Your task to perform on an android device: delete the emails in spam in the gmail app Image 0: 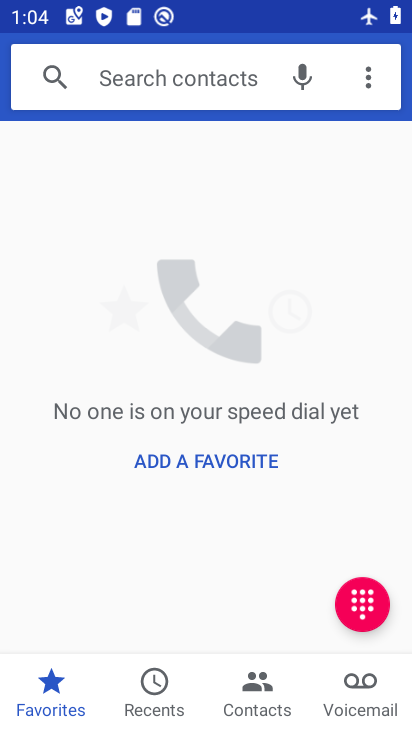
Step 0: press home button
Your task to perform on an android device: delete the emails in spam in the gmail app Image 1: 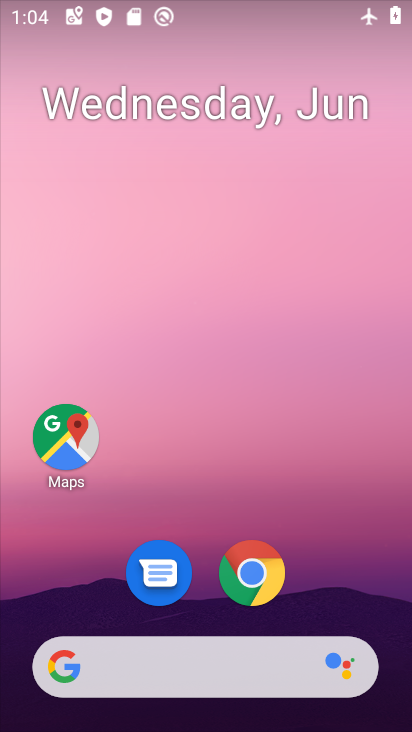
Step 1: drag from (386, 573) to (375, 82)
Your task to perform on an android device: delete the emails in spam in the gmail app Image 2: 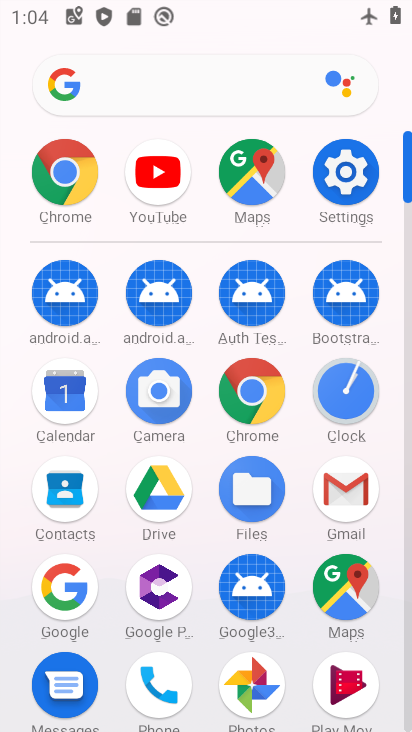
Step 2: click (358, 500)
Your task to perform on an android device: delete the emails in spam in the gmail app Image 3: 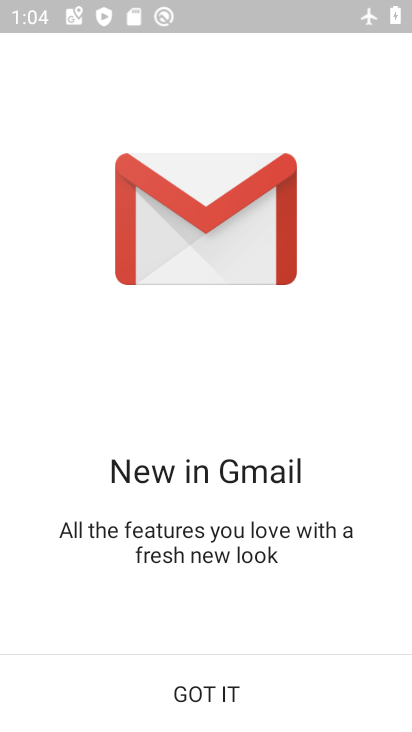
Step 3: click (257, 712)
Your task to perform on an android device: delete the emails in spam in the gmail app Image 4: 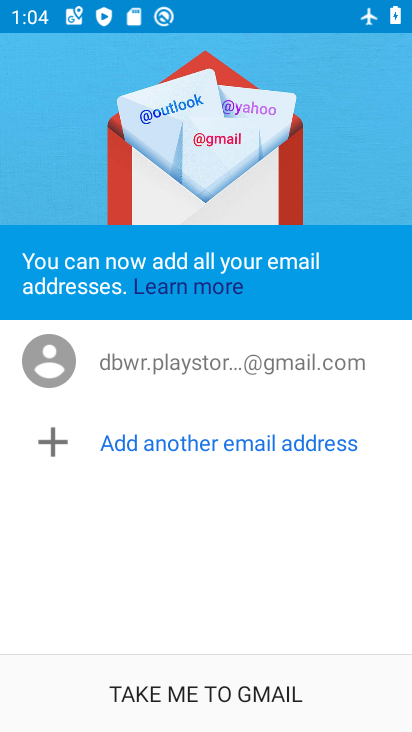
Step 4: click (257, 697)
Your task to perform on an android device: delete the emails in spam in the gmail app Image 5: 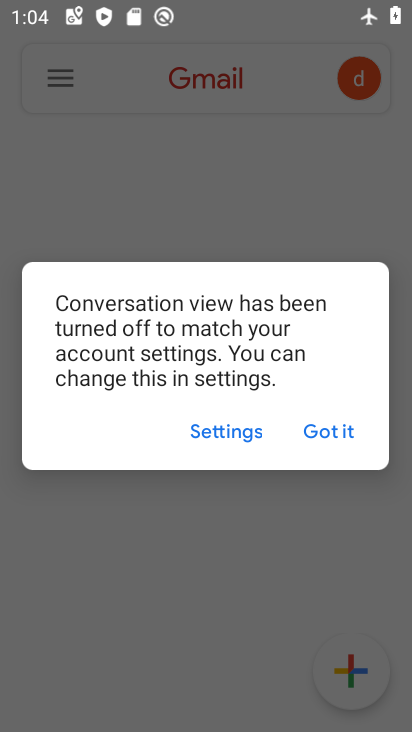
Step 5: click (352, 439)
Your task to perform on an android device: delete the emails in spam in the gmail app Image 6: 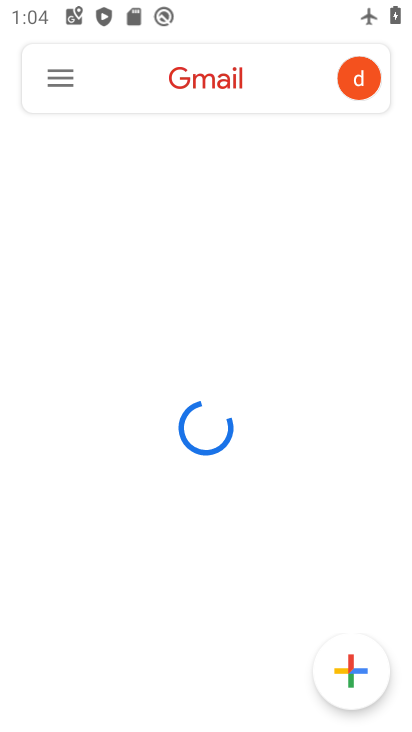
Step 6: click (53, 88)
Your task to perform on an android device: delete the emails in spam in the gmail app Image 7: 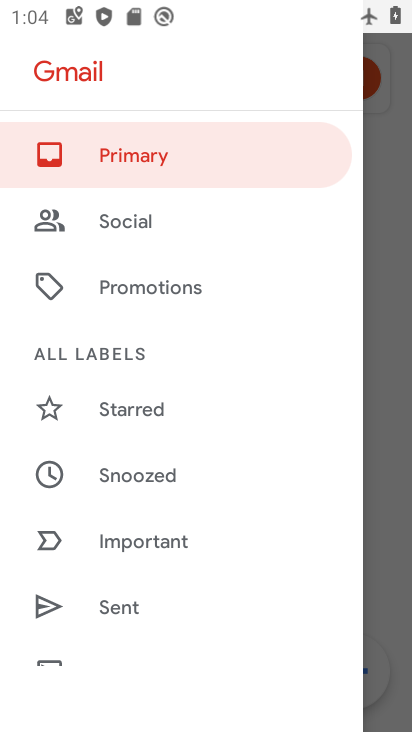
Step 7: drag from (199, 578) to (232, 201)
Your task to perform on an android device: delete the emails in spam in the gmail app Image 8: 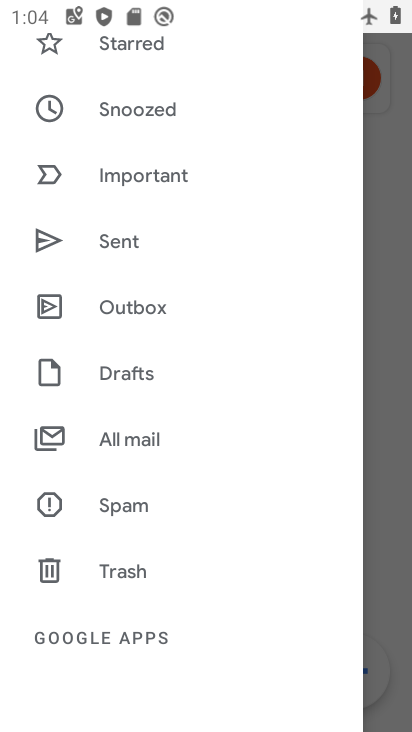
Step 8: drag from (177, 637) to (188, 411)
Your task to perform on an android device: delete the emails in spam in the gmail app Image 9: 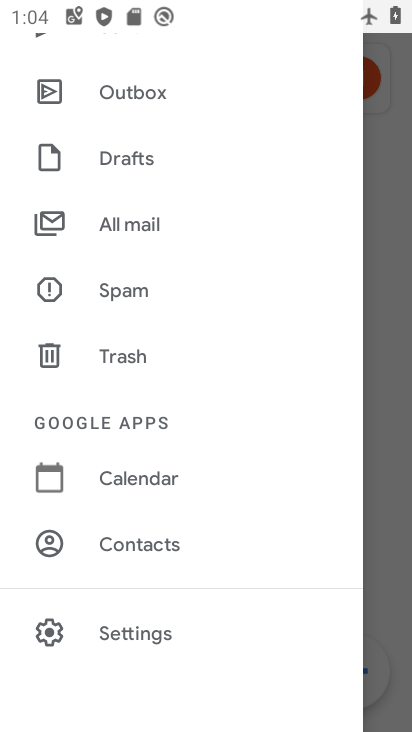
Step 9: click (148, 290)
Your task to perform on an android device: delete the emails in spam in the gmail app Image 10: 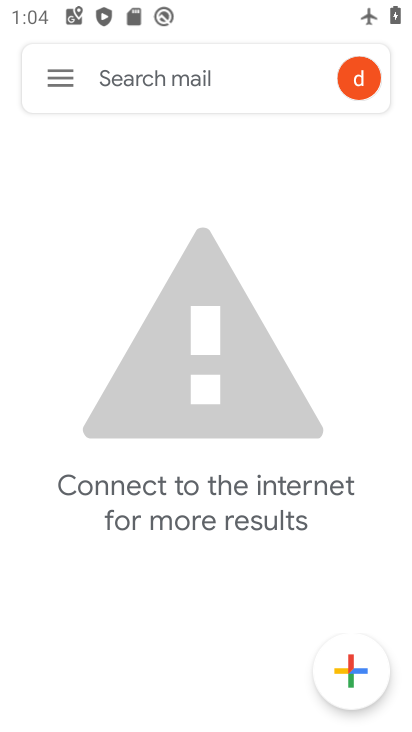
Step 10: task complete